Your task to perform on an android device: Open my contact list Image 0: 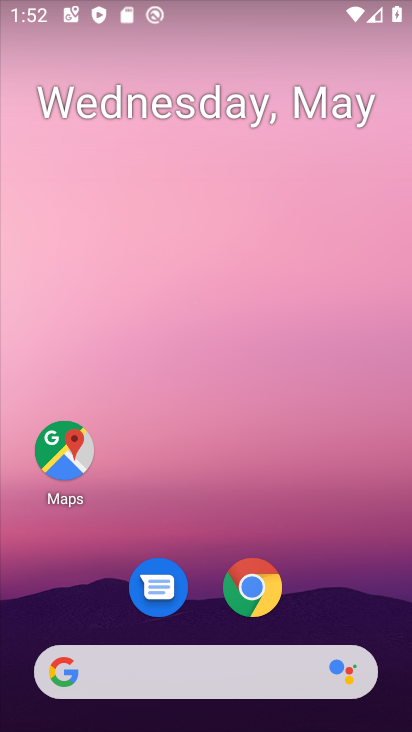
Step 0: drag from (390, 622) to (384, 6)
Your task to perform on an android device: Open my contact list Image 1: 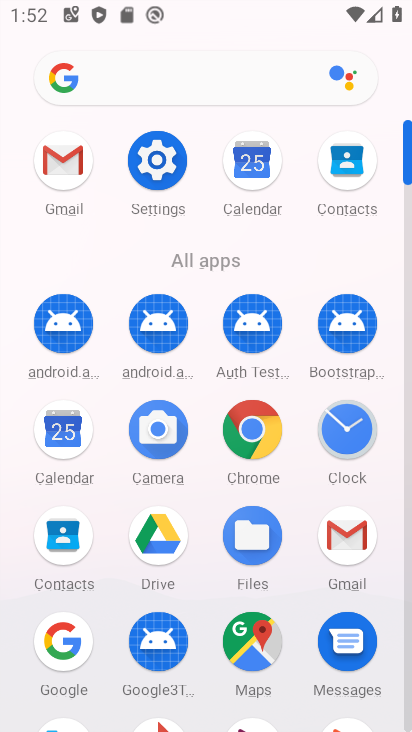
Step 1: click (50, 524)
Your task to perform on an android device: Open my contact list Image 2: 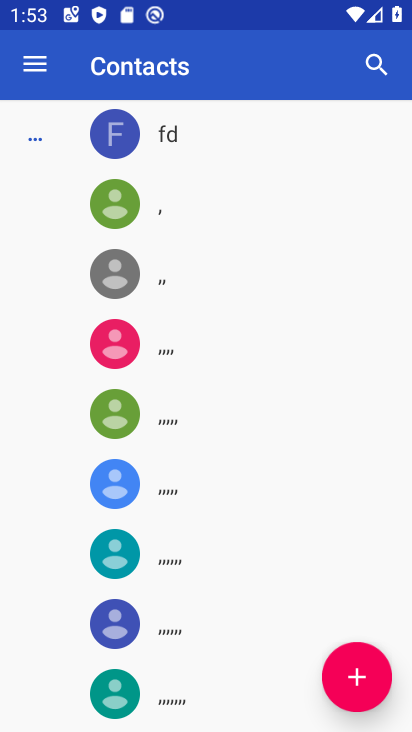
Step 2: task complete